Your task to perform on an android device: Go to CNN.com Image 0: 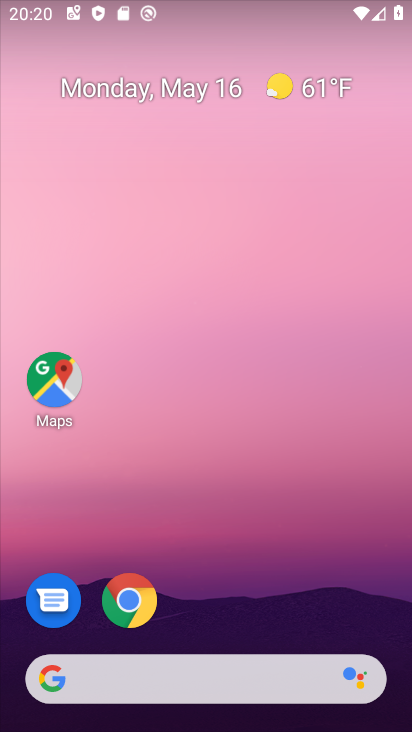
Step 0: click (127, 683)
Your task to perform on an android device: Go to CNN.com Image 1: 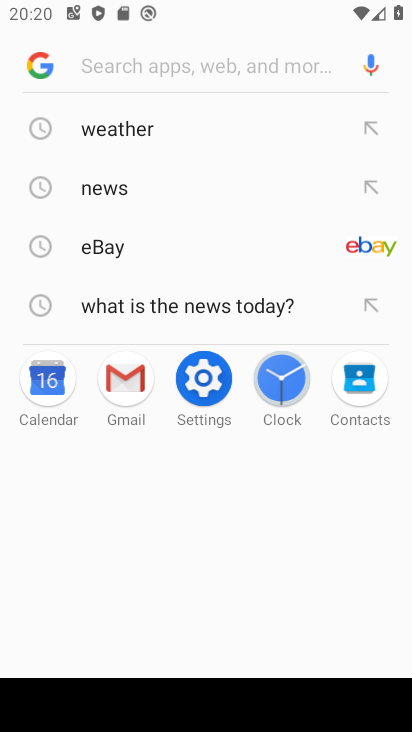
Step 1: type "CNN.com"
Your task to perform on an android device: Go to CNN.com Image 2: 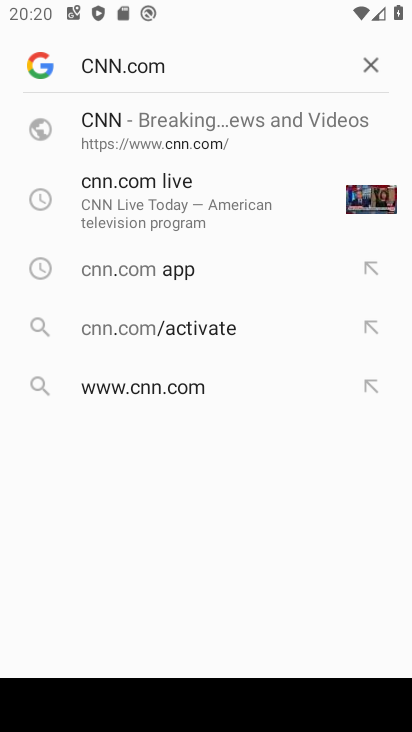
Step 2: click (150, 128)
Your task to perform on an android device: Go to CNN.com Image 3: 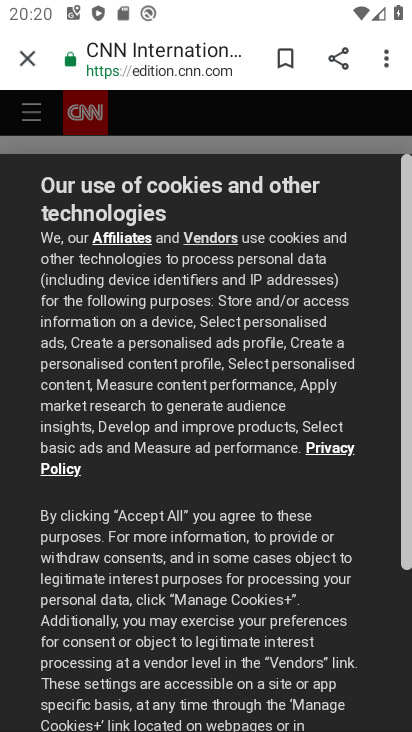
Step 3: drag from (109, 640) to (213, 286)
Your task to perform on an android device: Go to CNN.com Image 4: 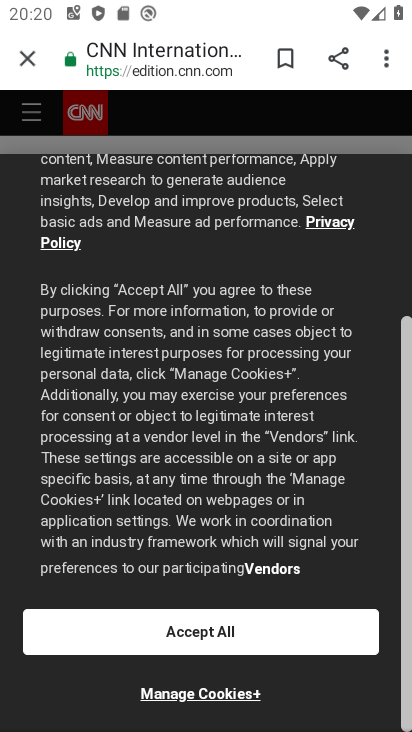
Step 4: click (185, 628)
Your task to perform on an android device: Go to CNN.com Image 5: 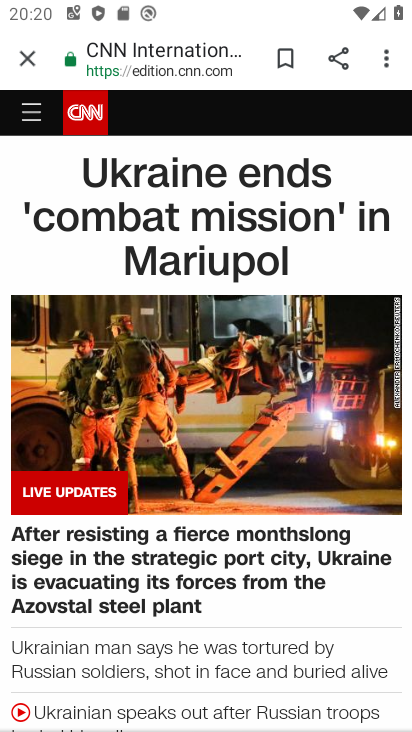
Step 5: task complete